Your task to perform on an android device: turn pop-ups on in chrome Image 0: 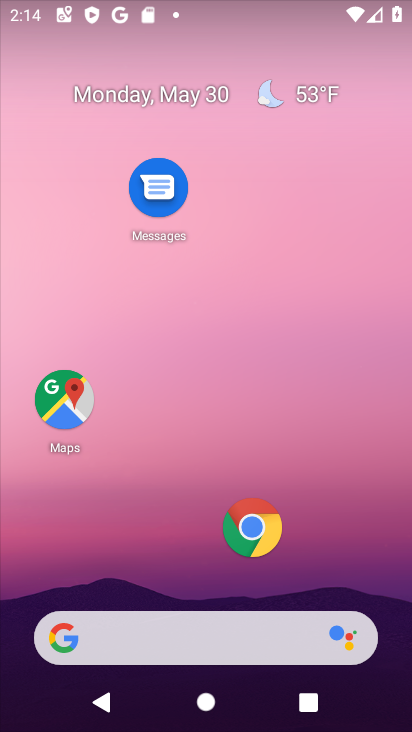
Step 0: drag from (209, 285) to (313, 40)
Your task to perform on an android device: turn pop-ups on in chrome Image 1: 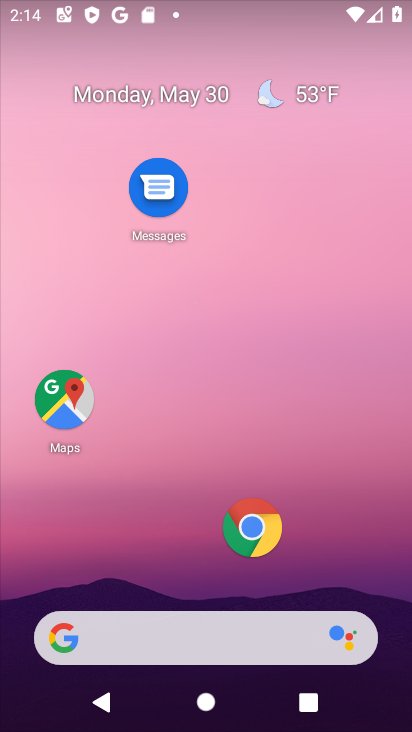
Step 1: drag from (206, 474) to (258, 0)
Your task to perform on an android device: turn pop-ups on in chrome Image 2: 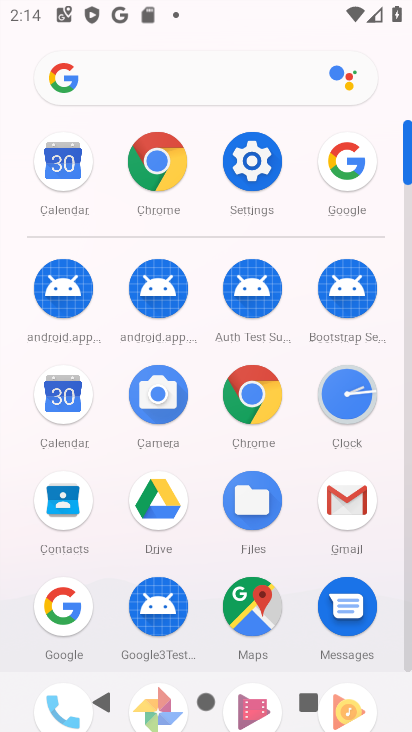
Step 2: click (253, 375)
Your task to perform on an android device: turn pop-ups on in chrome Image 3: 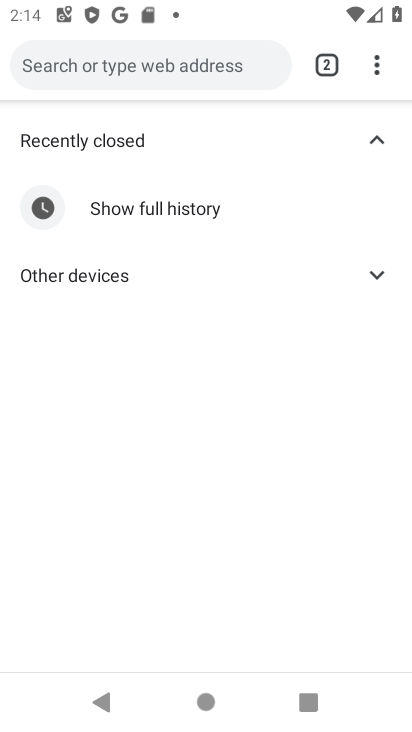
Step 3: click (382, 69)
Your task to perform on an android device: turn pop-ups on in chrome Image 4: 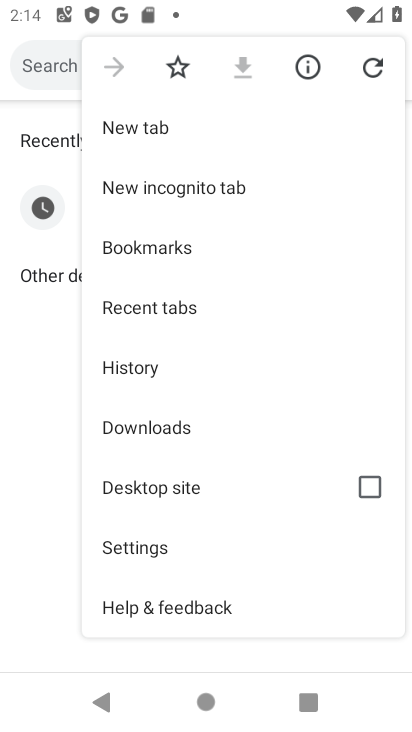
Step 4: click (189, 555)
Your task to perform on an android device: turn pop-ups on in chrome Image 5: 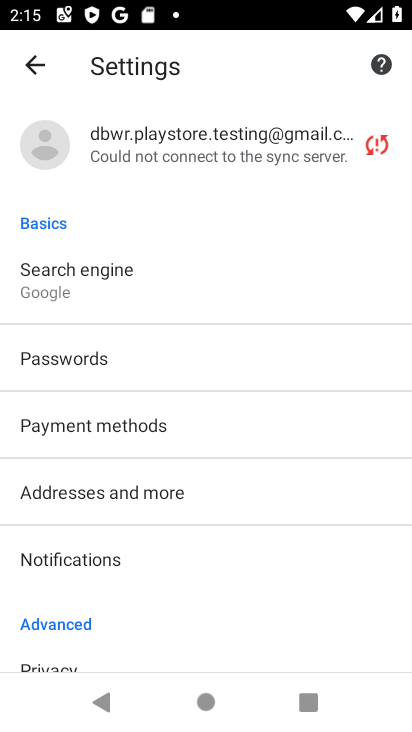
Step 5: drag from (110, 593) to (121, 259)
Your task to perform on an android device: turn pop-ups on in chrome Image 6: 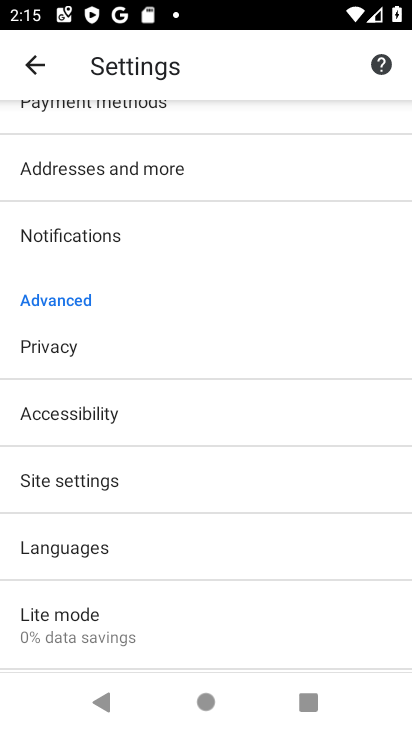
Step 6: click (110, 497)
Your task to perform on an android device: turn pop-ups on in chrome Image 7: 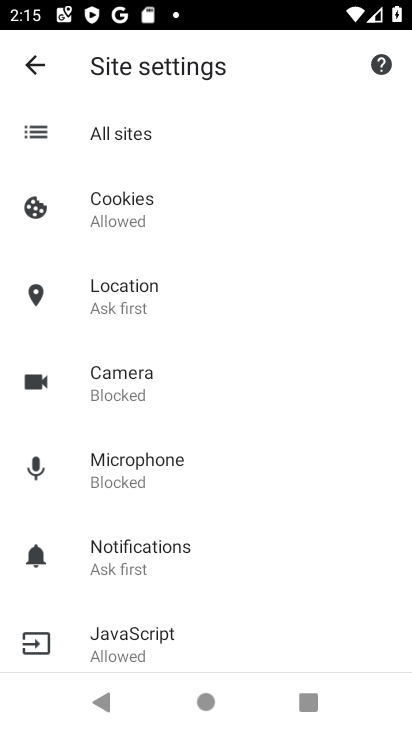
Step 7: drag from (144, 561) to (152, 244)
Your task to perform on an android device: turn pop-ups on in chrome Image 8: 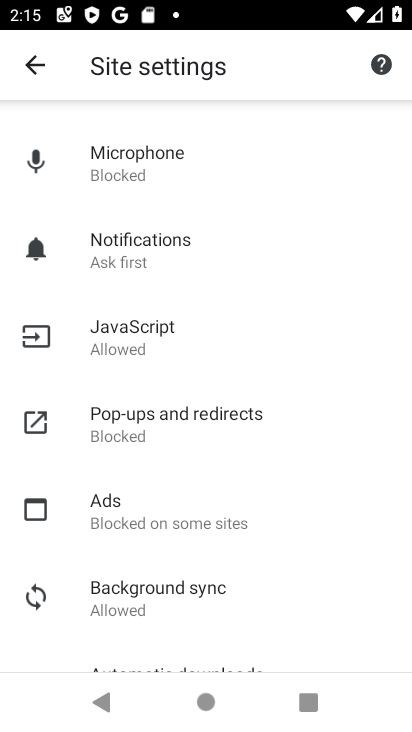
Step 8: click (157, 441)
Your task to perform on an android device: turn pop-ups on in chrome Image 9: 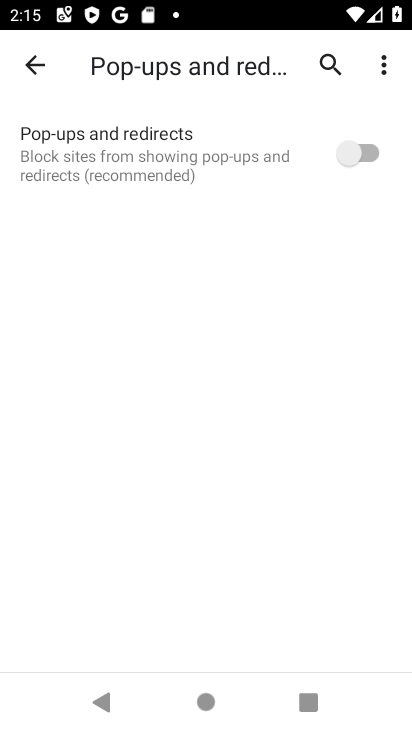
Step 9: click (361, 152)
Your task to perform on an android device: turn pop-ups on in chrome Image 10: 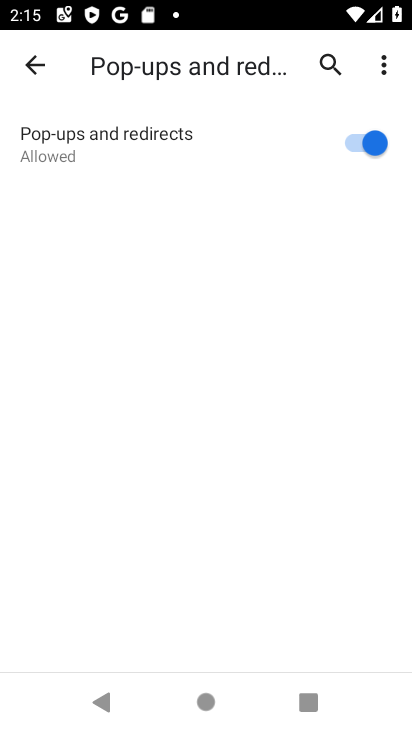
Step 10: task complete